Your task to perform on an android device: Go to eBay Image 0: 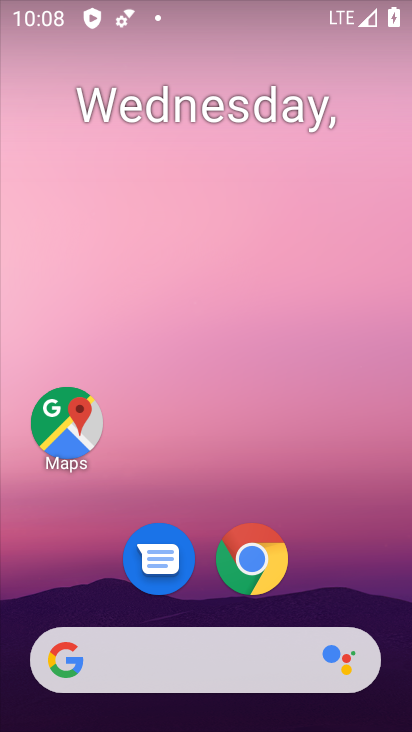
Step 0: click (245, 570)
Your task to perform on an android device: Go to eBay Image 1: 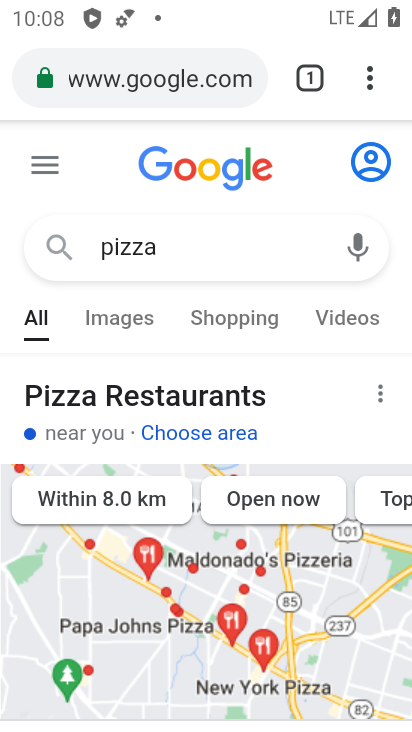
Step 1: click (110, 51)
Your task to perform on an android device: Go to eBay Image 2: 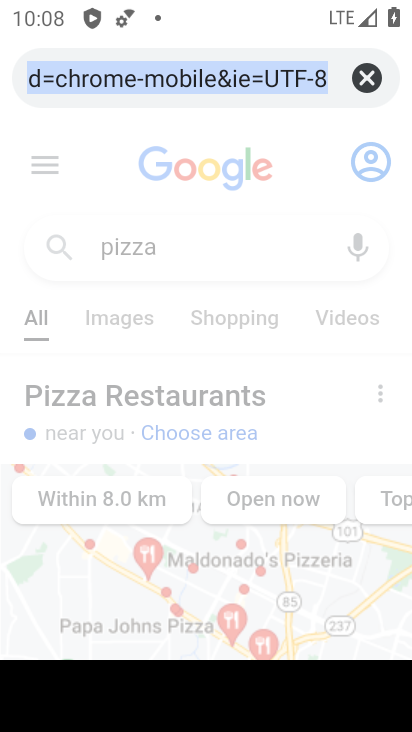
Step 2: click (359, 71)
Your task to perform on an android device: Go to eBay Image 3: 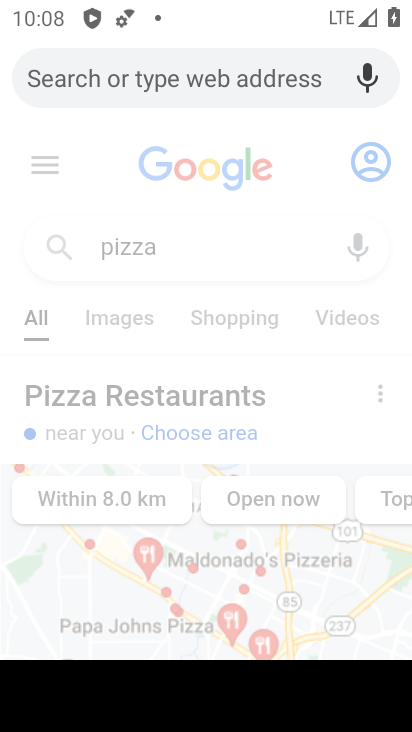
Step 3: type "ebay"
Your task to perform on an android device: Go to eBay Image 4: 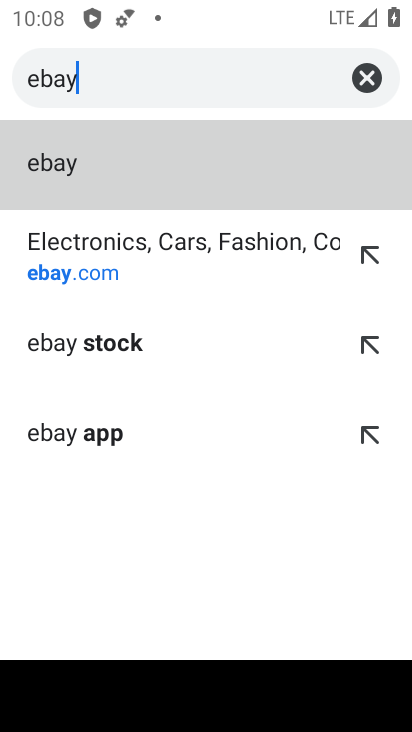
Step 4: click (110, 256)
Your task to perform on an android device: Go to eBay Image 5: 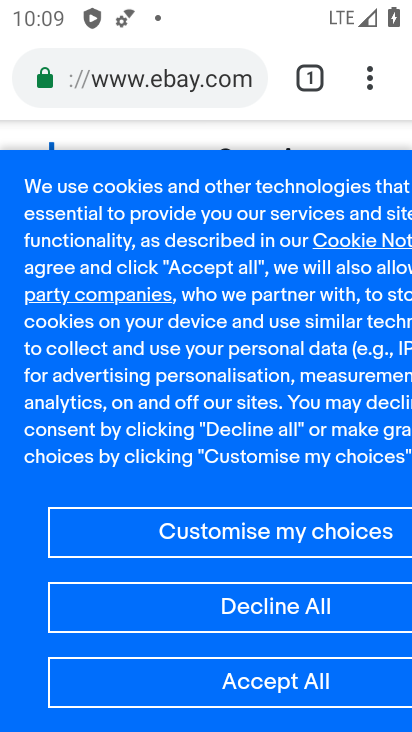
Step 5: task complete